Your task to perform on an android device: toggle sleep mode Image 0: 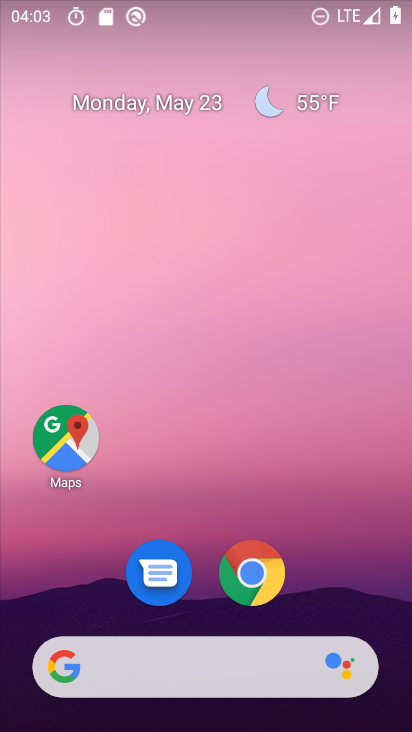
Step 0: drag from (340, 582) to (268, 65)
Your task to perform on an android device: toggle sleep mode Image 1: 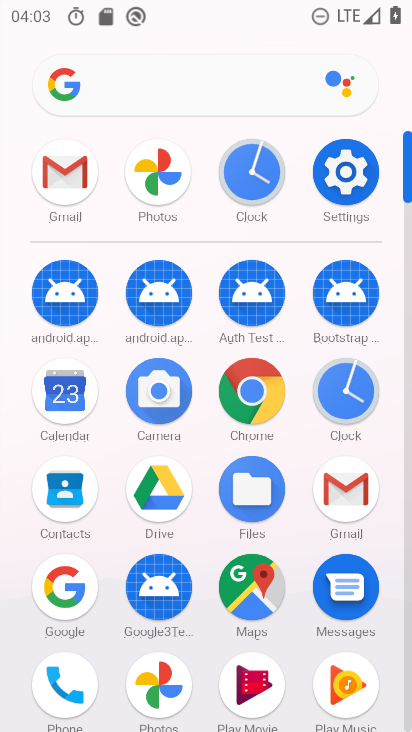
Step 1: click (355, 179)
Your task to perform on an android device: toggle sleep mode Image 2: 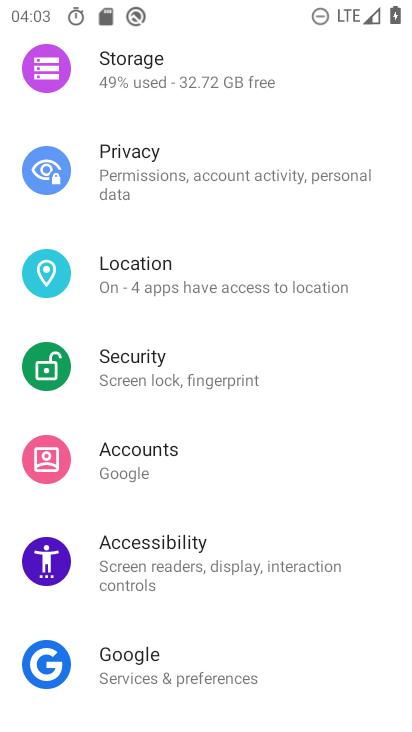
Step 2: drag from (300, 205) to (272, 611)
Your task to perform on an android device: toggle sleep mode Image 3: 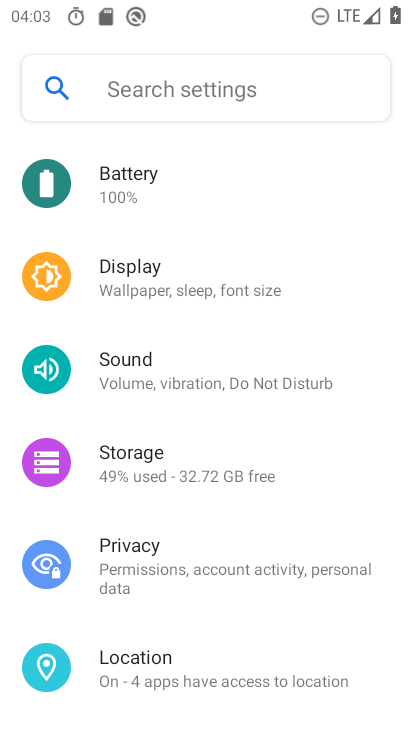
Step 3: click (204, 287)
Your task to perform on an android device: toggle sleep mode Image 4: 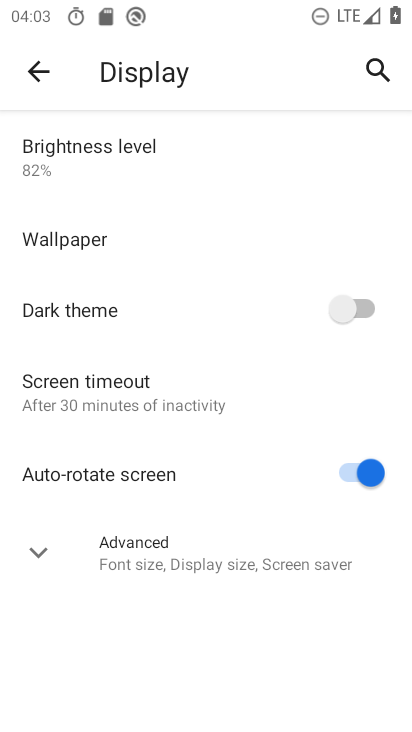
Step 4: click (226, 563)
Your task to perform on an android device: toggle sleep mode Image 5: 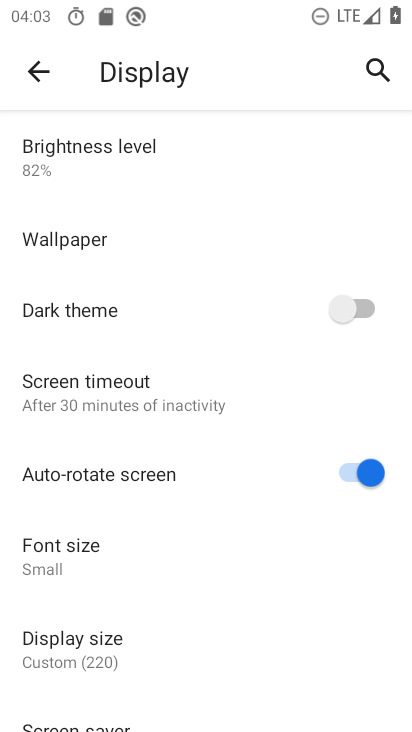
Step 5: task complete